Your task to perform on an android device: open app "Calculator" Image 0: 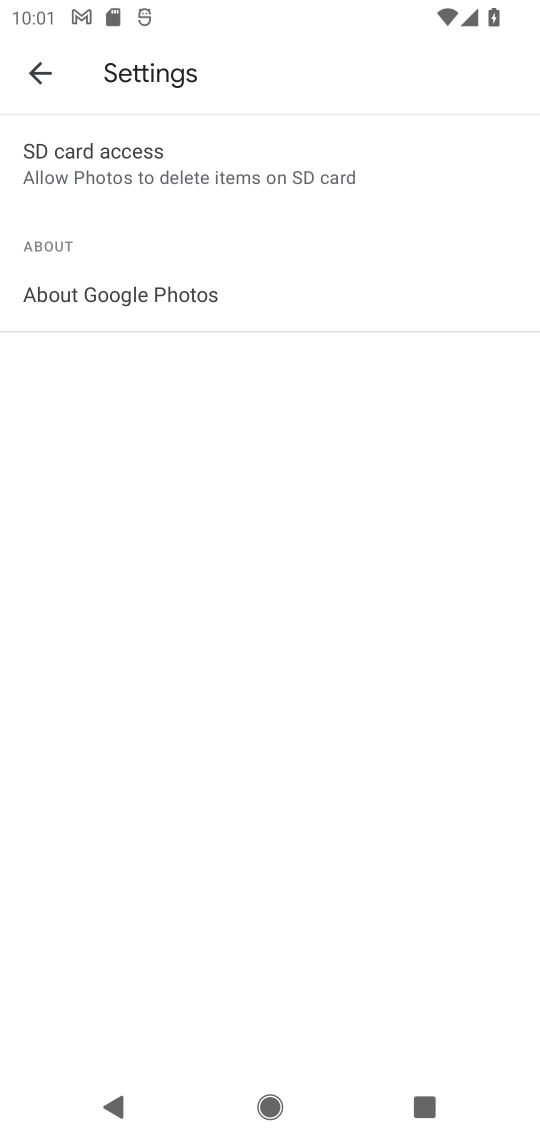
Step 0: press home button
Your task to perform on an android device: open app "Calculator" Image 1: 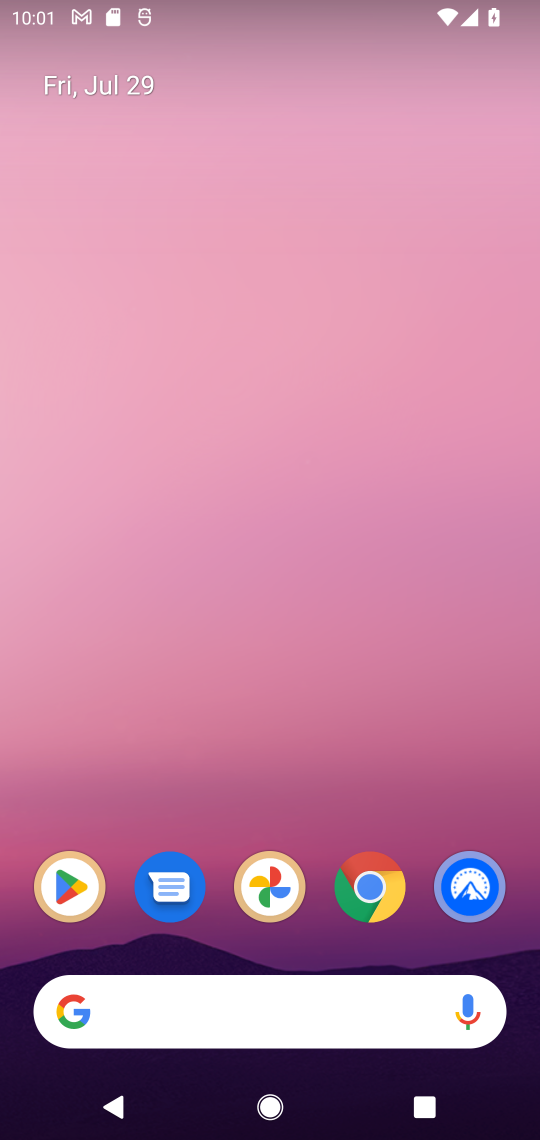
Step 1: click (63, 888)
Your task to perform on an android device: open app "Calculator" Image 2: 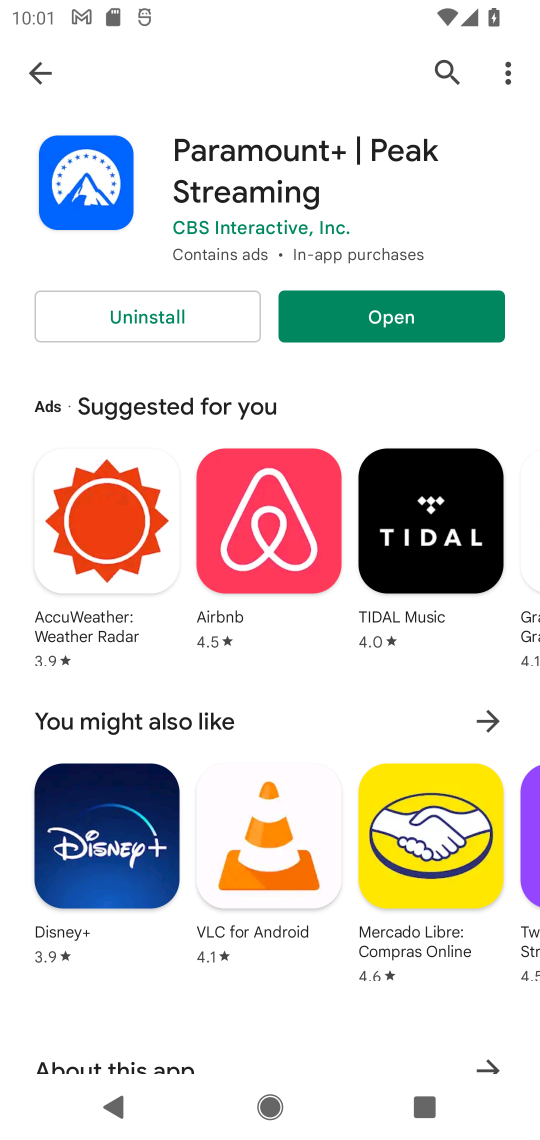
Step 2: click (434, 82)
Your task to perform on an android device: open app "Calculator" Image 3: 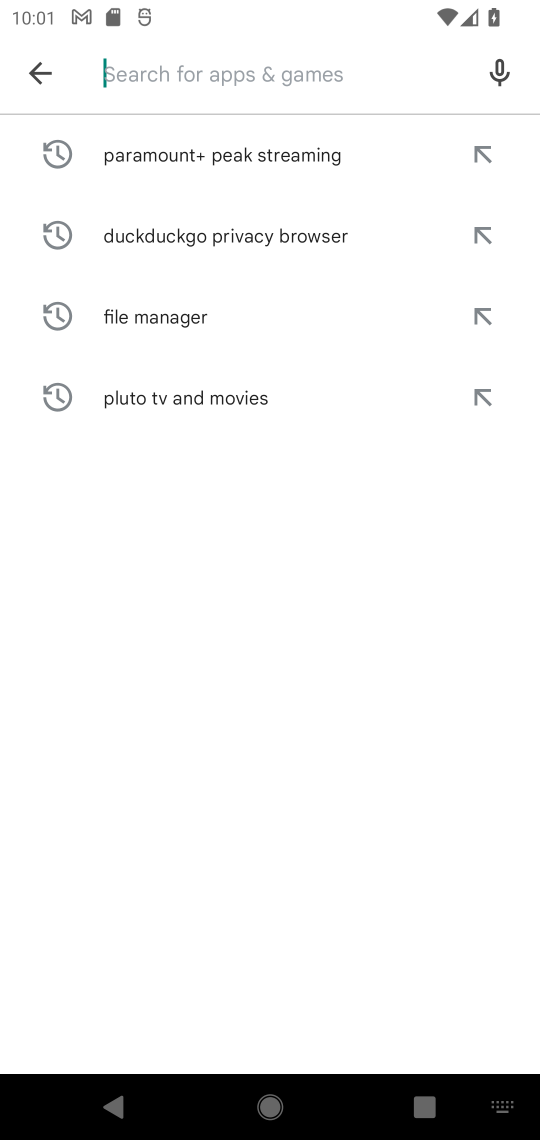
Step 3: type "calculator"
Your task to perform on an android device: open app "Calculator" Image 4: 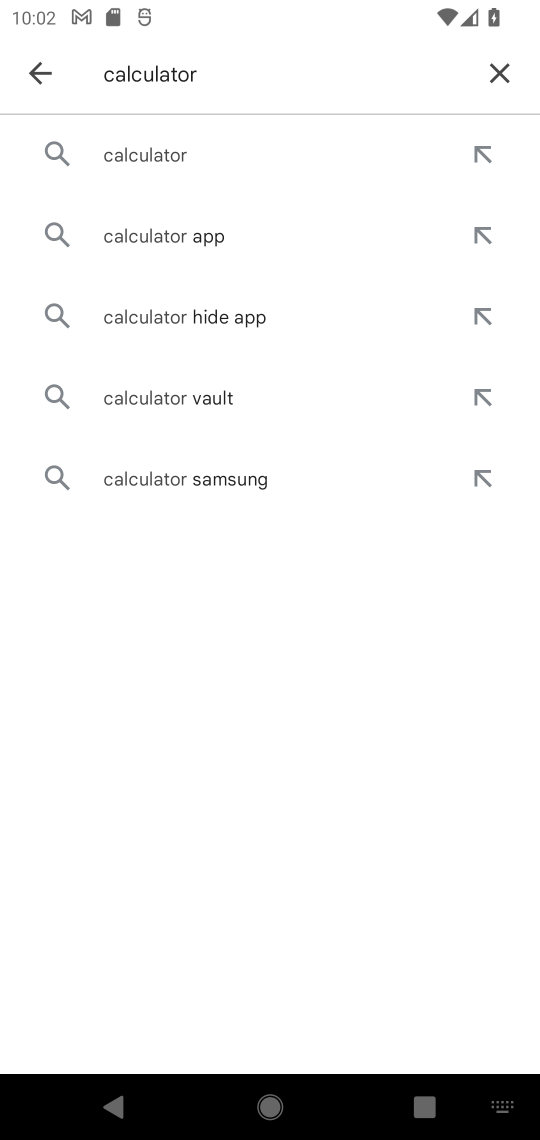
Step 4: click (179, 148)
Your task to perform on an android device: open app "Calculator" Image 5: 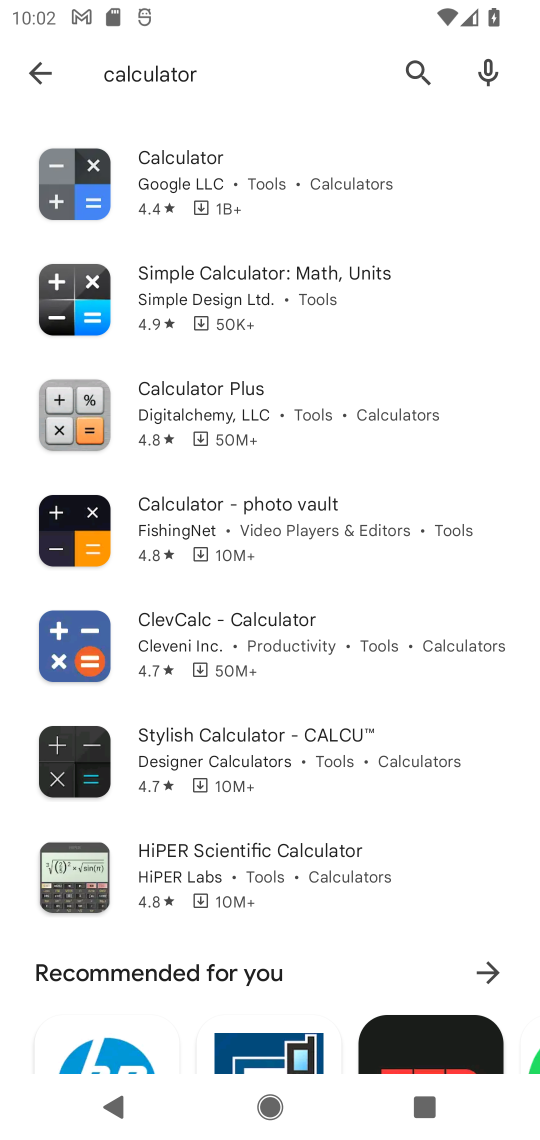
Step 5: click (169, 152)
Your task to perform on an android device: open app "Calculator" Image 6: 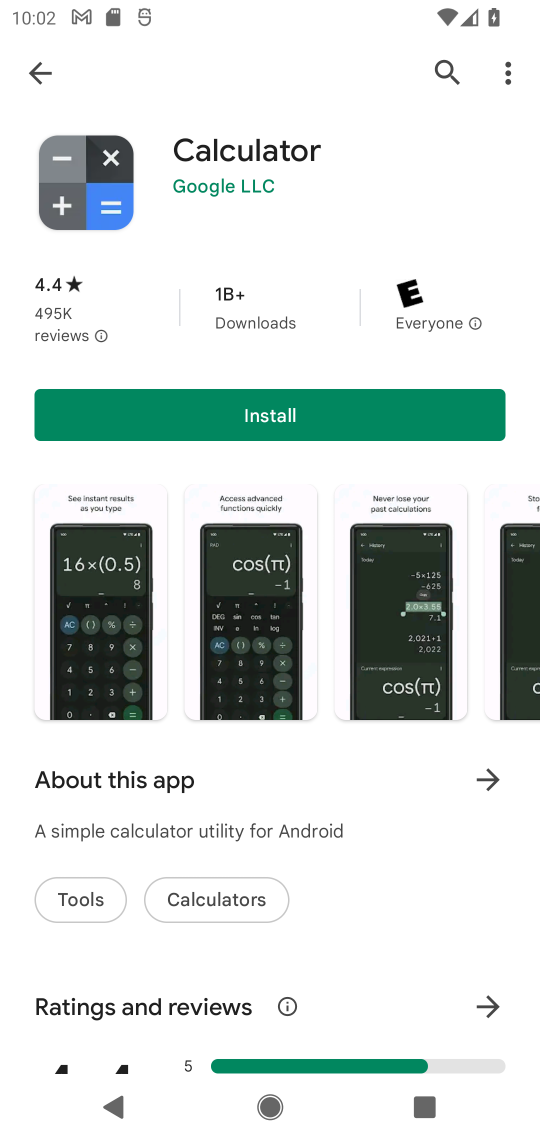
Step 6: task complete